Your task to perform on an android device: add a contact Image 0: 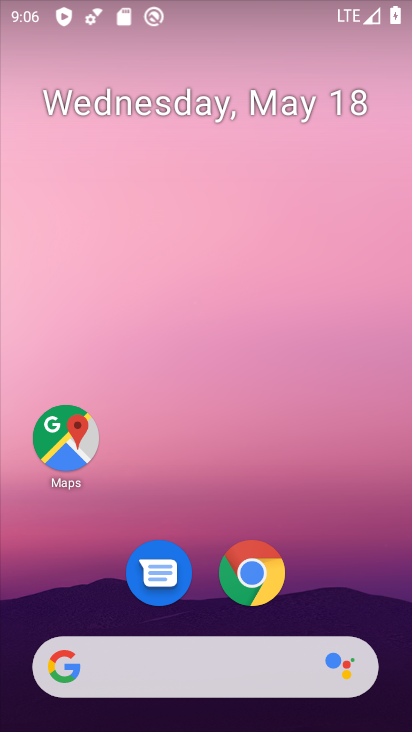
Step 0: drag from (247, 599) to (251, 29)
Your task to perform on an android device: add a contact Image 1: 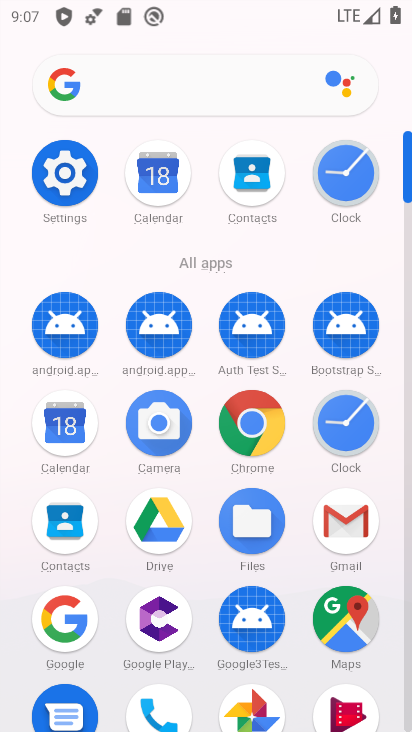
Step 1: click (57, 543)
Your task to perform on an android device: add a contact Image 2: 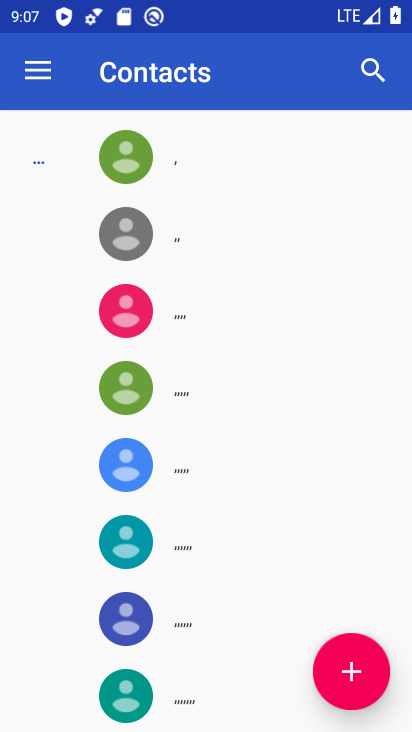
Step 2: click (350, 686)
Your task to perform on an android device: add a contact Image 3: 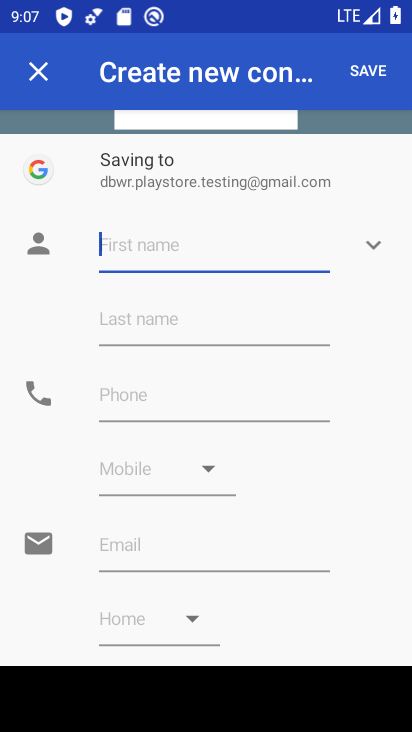
Step 3: type "jhvbk"
Your task to perform on an android device: add a contact Image 4: 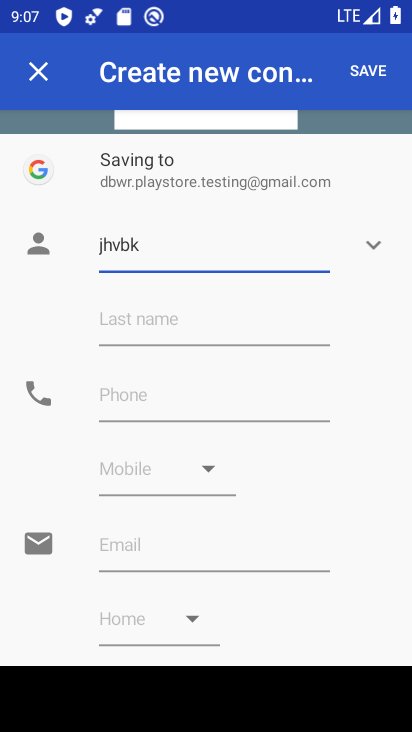
Step 4: click (204, 397)
Your task to perform on an android device: add a contact Image 5: 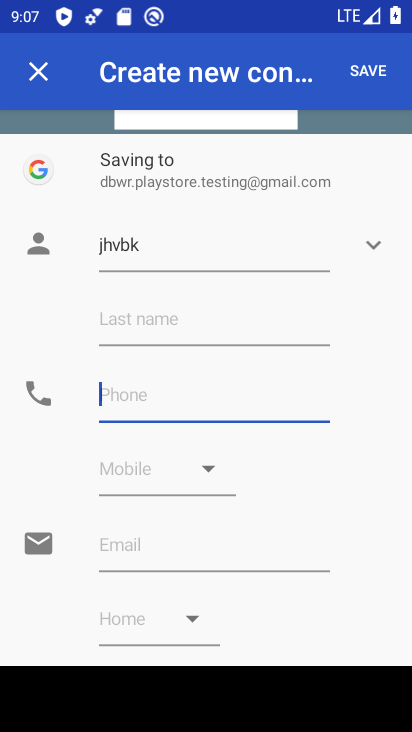
Step 5: type "8769"
Your task to perform on an android device: add a contact Image 6: 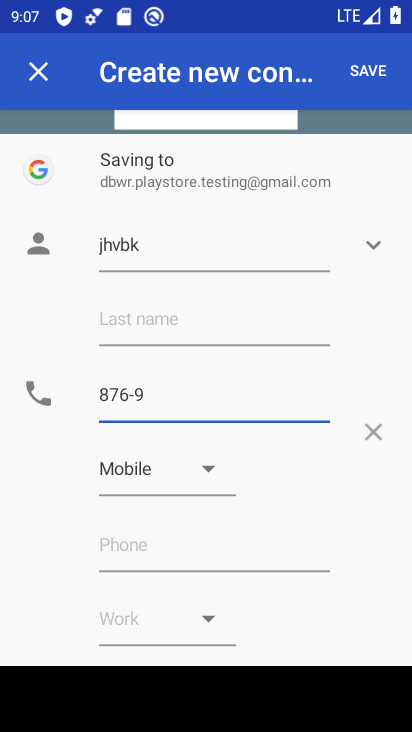
Step 6: click (369, 72)
Your task to perform on an android device: add a contact Image 7: 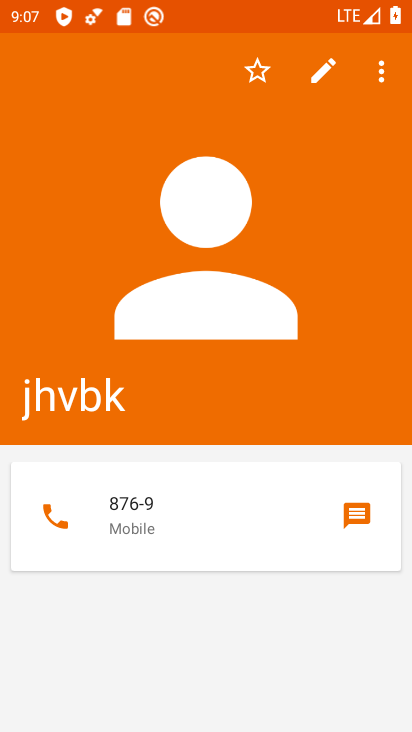
Step 7: task complete